Your task to perform on an android device: delete location history Image 0: 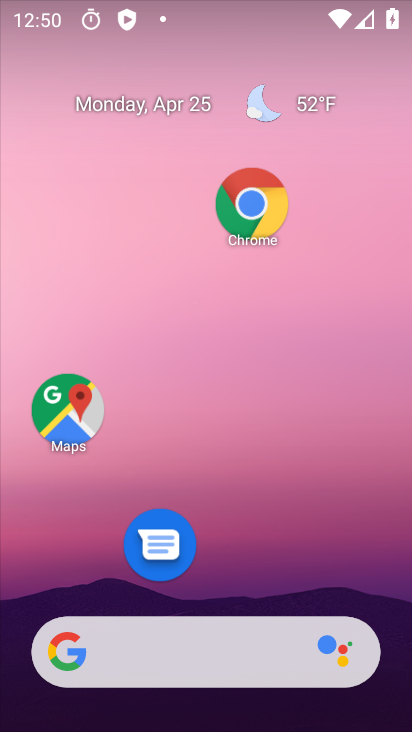
Step 0: drag from (330, 684) to (372, 226)
Your task to perform on an android device: delete location history Image 1: 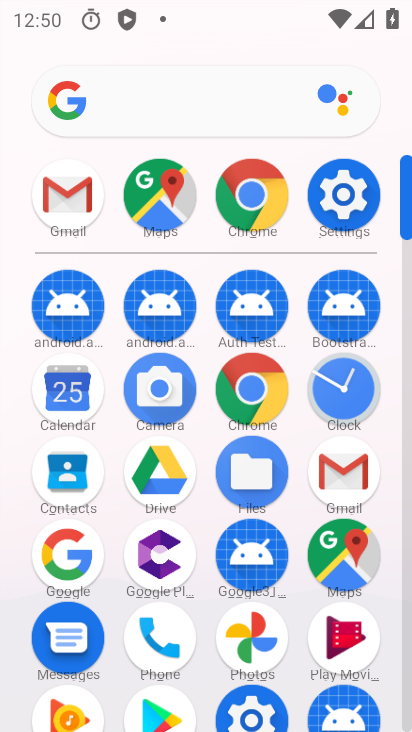
Step 1: click (346, 197)
Your task to perform on an android device: delete location history Image 2: 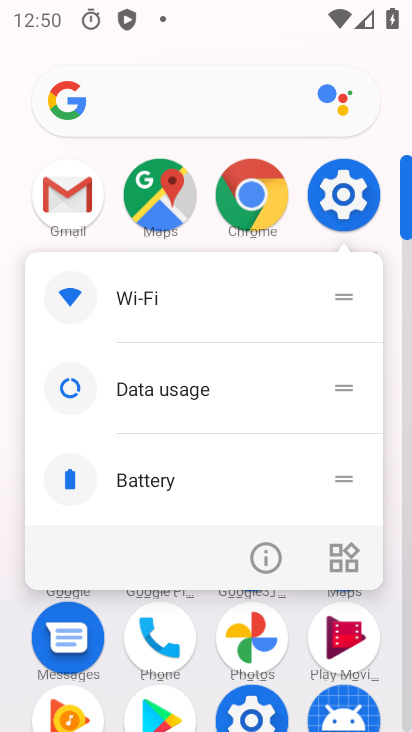
Step 2: click (345, 189)
Your task to perform on an android device: delete location history Image 3: 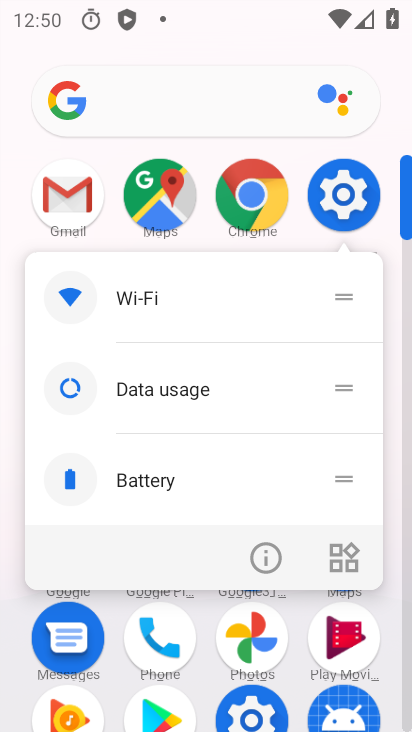
Step 3: click (334, 195)
Your task to perform on an android device: delete location history Image 4: 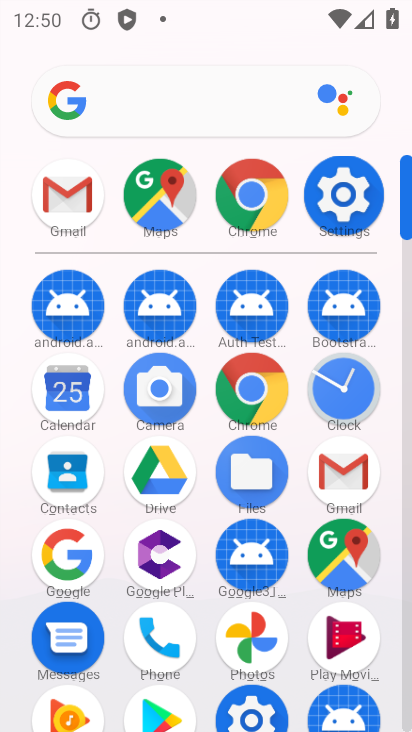
Step 4: click (325, 201)
Your task to perform on an android device: delete location history Image 5: 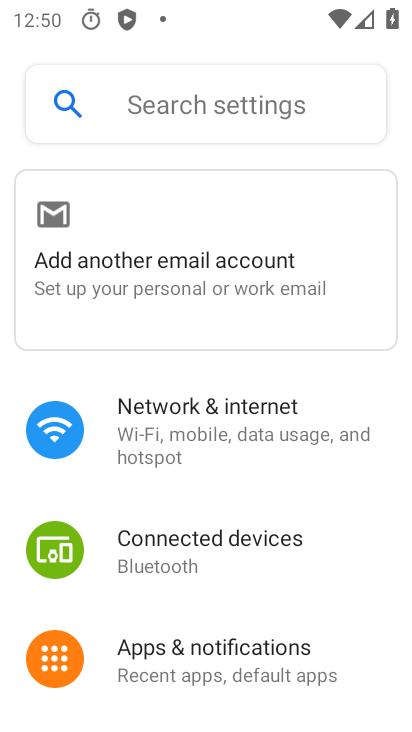
Step 5: click (246, 95)
Your task to perform on an android device: delete location history Image 6: 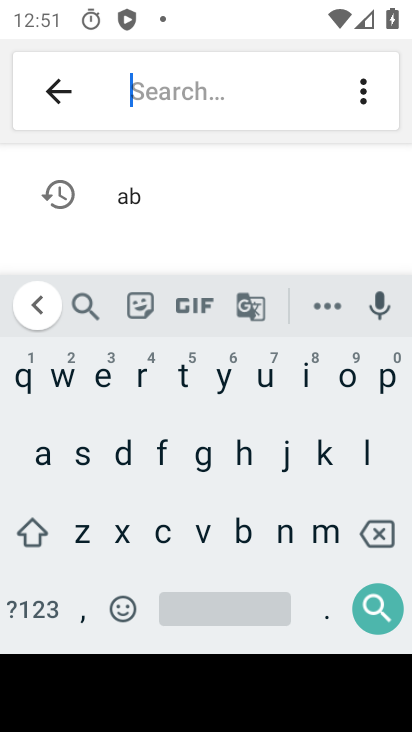
Step 6: click (370, 448)
Your task to perform on an android device: delete location history Image 7: 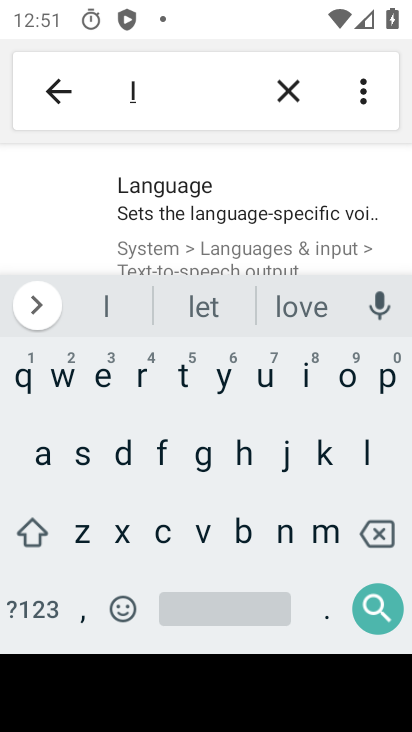
Step 7: click (351, 369)
Your task to perform on an android device: delete location history Image 8: 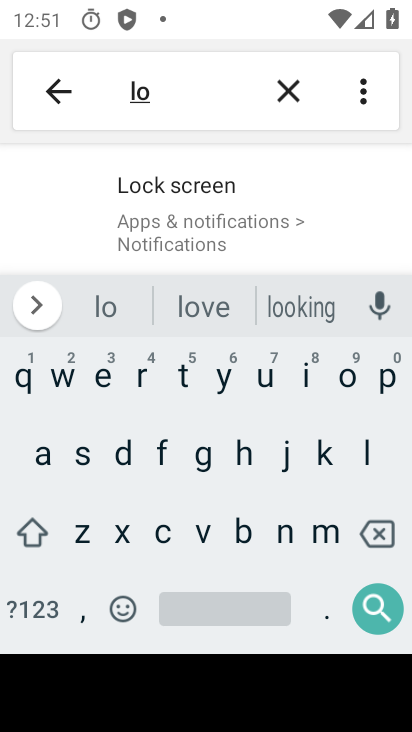
Step 8: press back button
Your task to perform on an android device: delete location history Image 9: 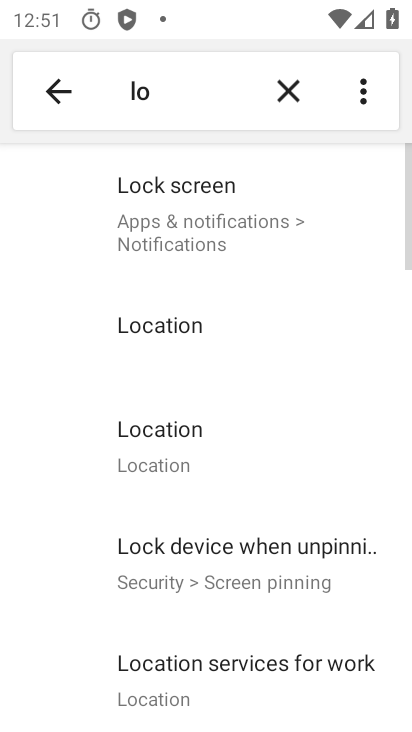
Step 9: click (128, 446)
Your task to perform on an android device: delete location history Image 10: 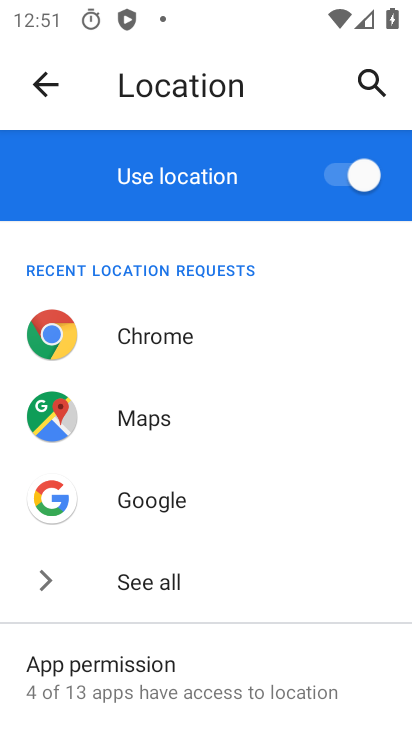
Step 10: task complete